Your task to perform on an android device: Set the phone to "Do not disturb". Image 0: 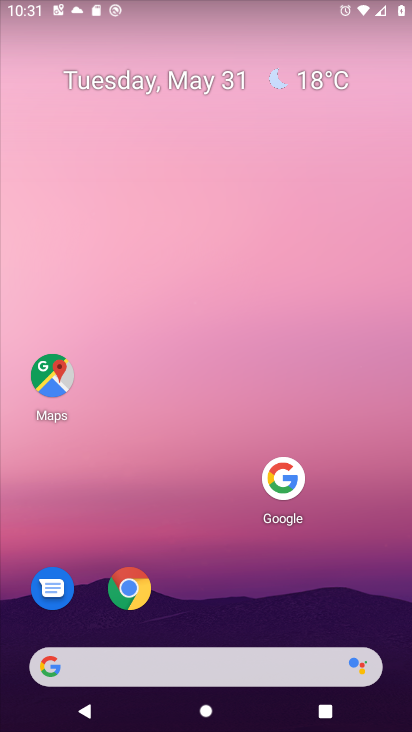
Step 0: drag from (164, 663) to (278, 173)
Your task to perform on an android device: Set the phone to "Do not disturb". Image 1: 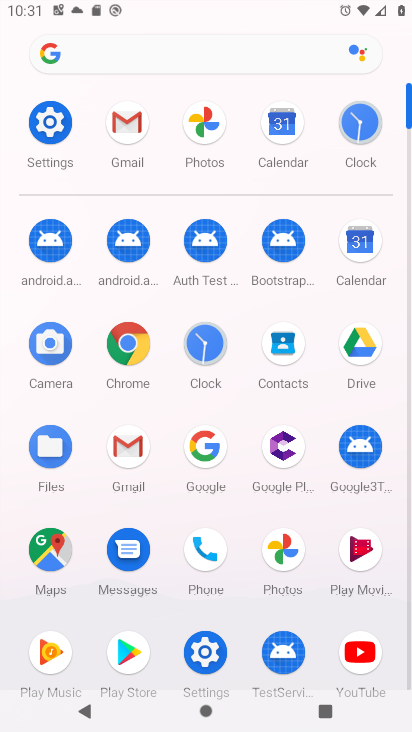
Step 1: click (47, 118)
Your task to perform on an android device: Set the phone to "Do not disturb". Image 2: 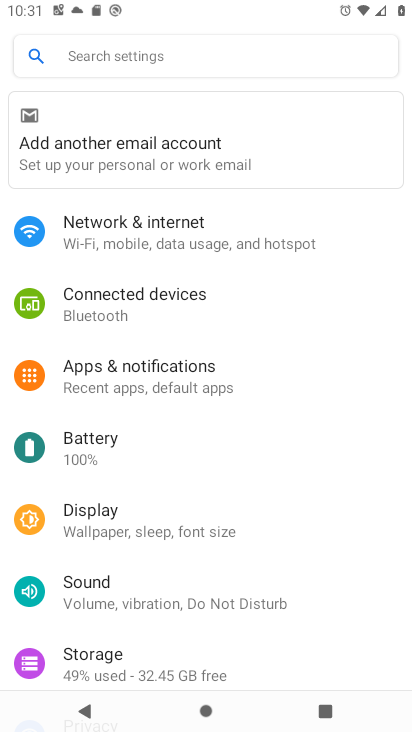
Step 2: click (124, 596)
Your task to perform on an android device: Set the phone to "Do not disturb". Image 3: 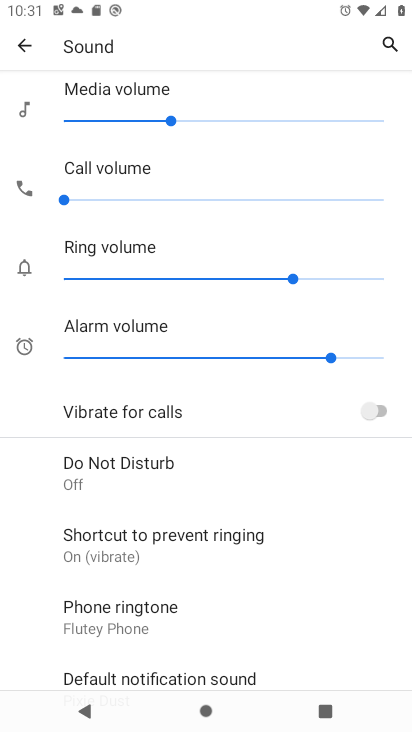
Step 3: click (112, 467)
Your task to perform on an android device: Set the phone to "Do not disturb". Image 4: 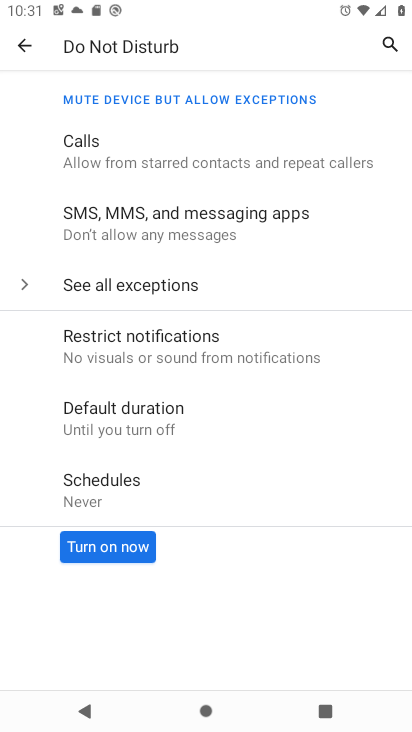
Step 4: click (98, 547)
Your task to perform on an android device: Set the phone to "Do not disturb". Image 5: 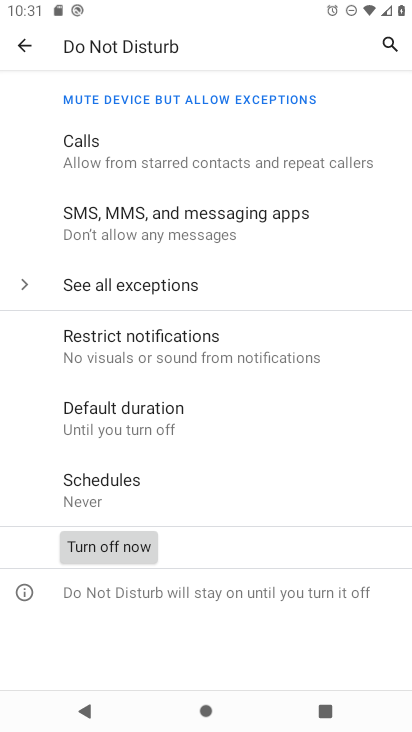
Step 5: task complete